Your task to perform on an android device: Search for flights from NYC to Tokyo Image 0: 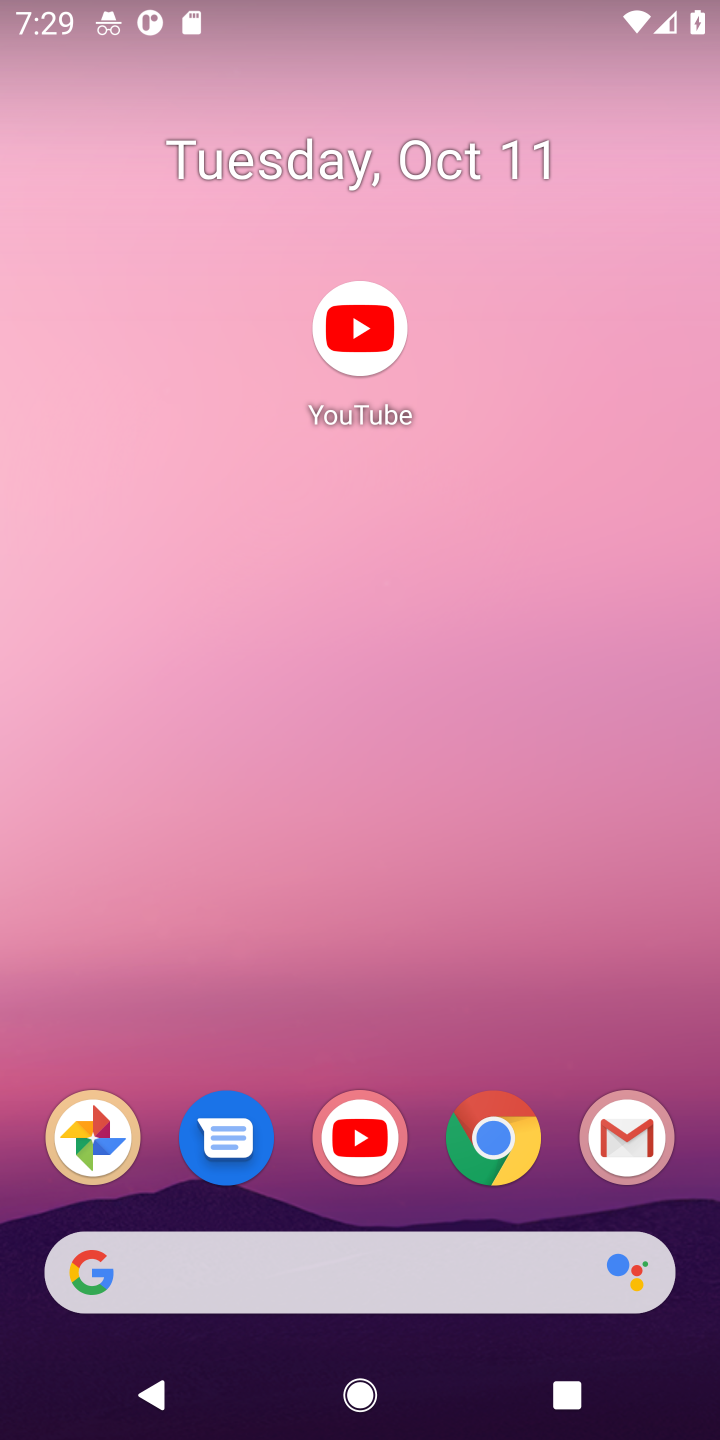
Step 0: click (393, 1275)
Your task to perform on an android device: Search for flights from NYC to Tokyo Image 1: 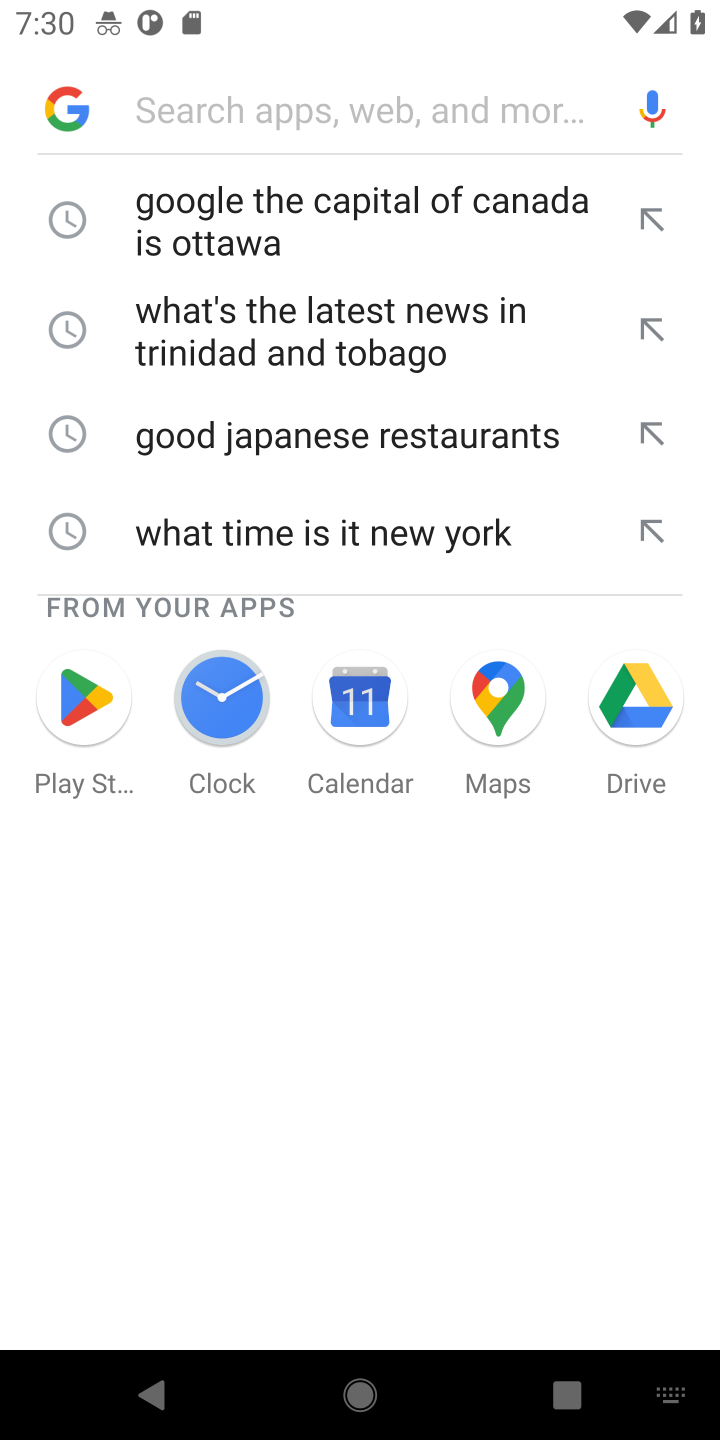
Step 1: type "Search for flights from NYC to Tokyo"
Your task to perform on an android device: Search for flights from NYC to Tokyo Image 2: 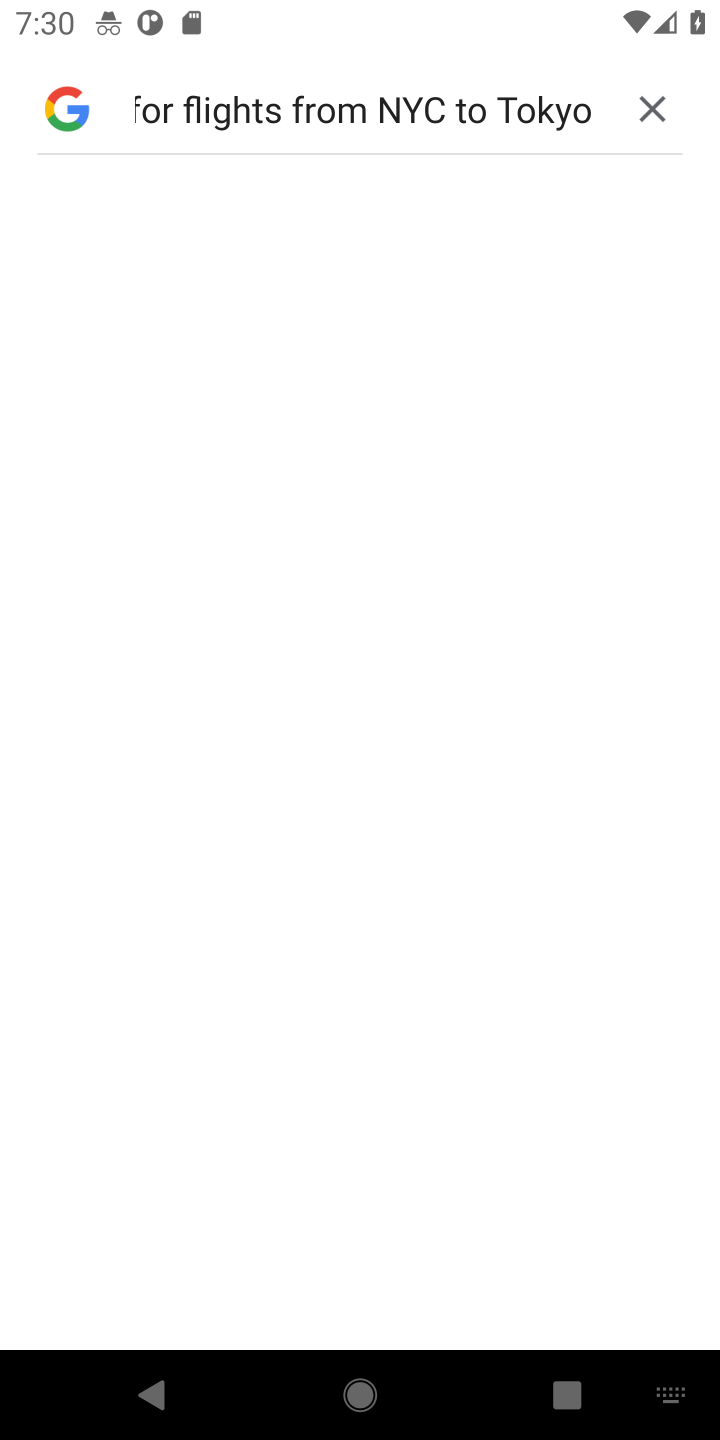
Step 2: type "Search for flights from NYC to Tokyo"
Your task to perform on an android device: Search for flights from NYC to Tokyo Image 3: 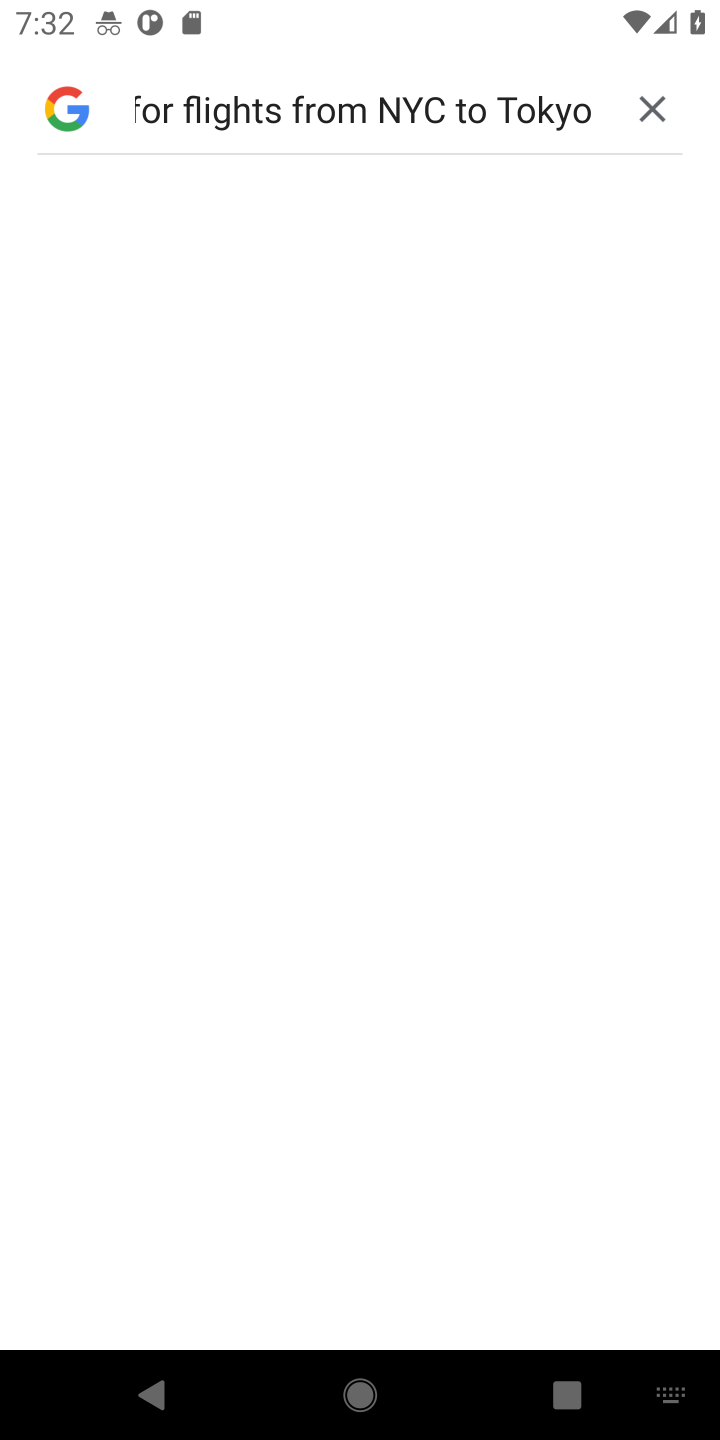
Step 3: task complete